Your task to perform on an android device: Go to wifi settings Image 0: 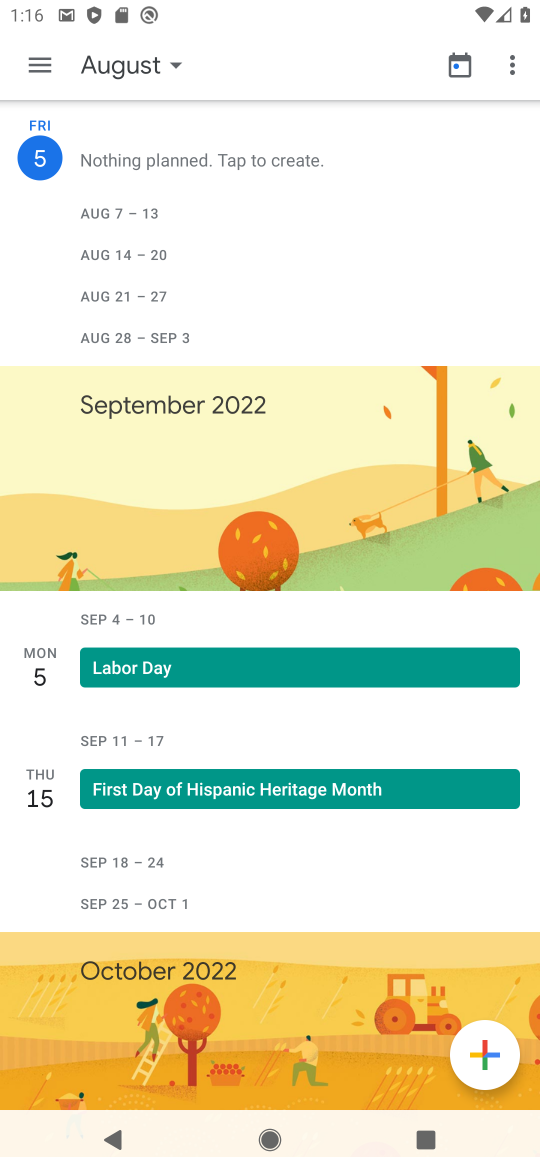
Step 0: press home button
Your task to perform on an android device: Go to wifi settings Image 1: 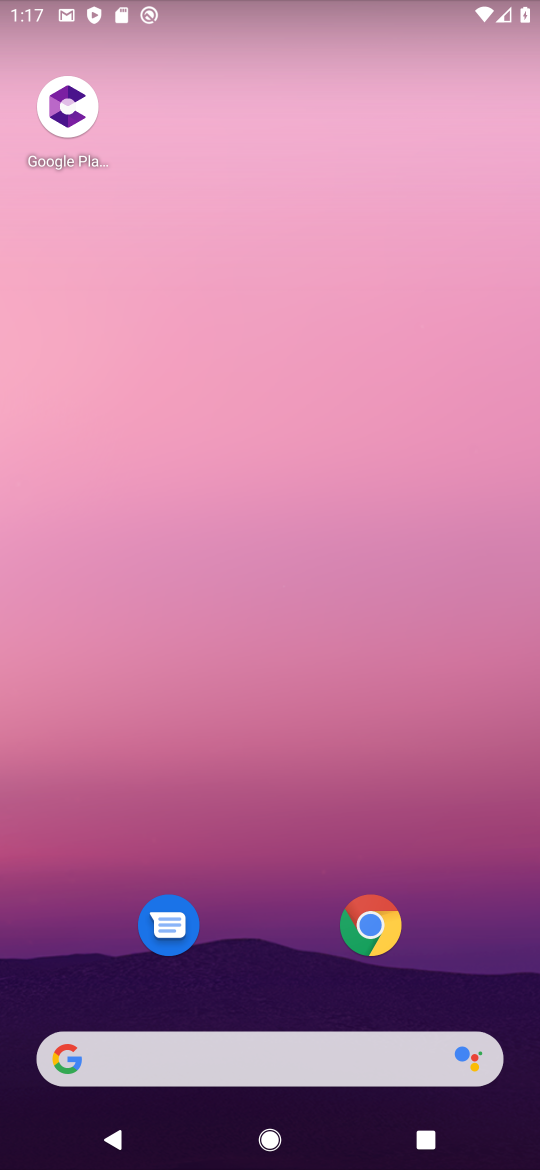
Step 1: drag from (269, 10) to (525, 757)
Your task to perform on an android device: Go to wifi settings Image 2: 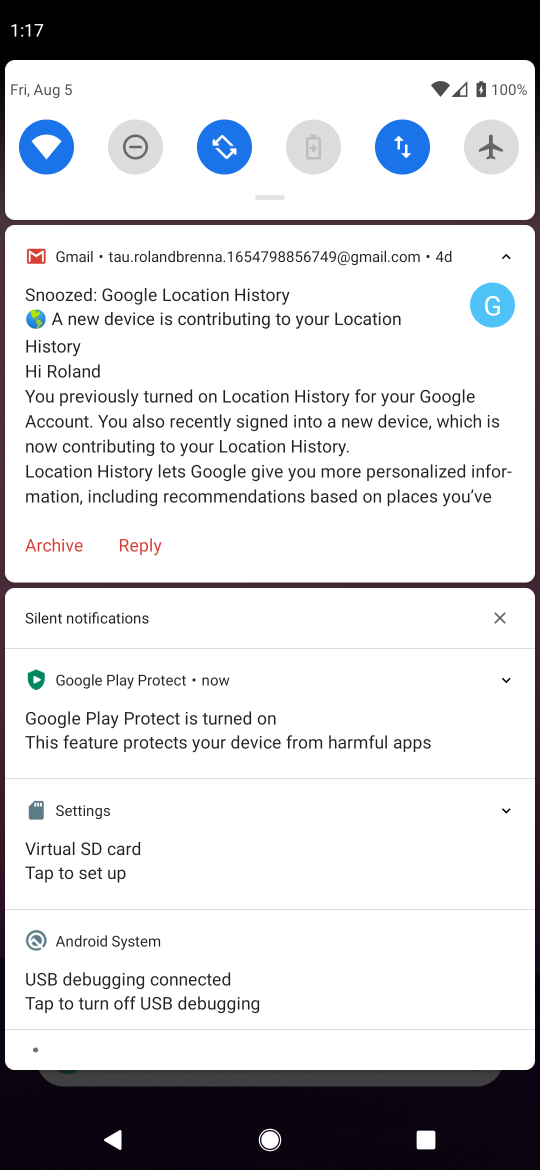
Step 2: click (25, 153)
Your task to perform on an android device: Go to wifi settings Image 3: 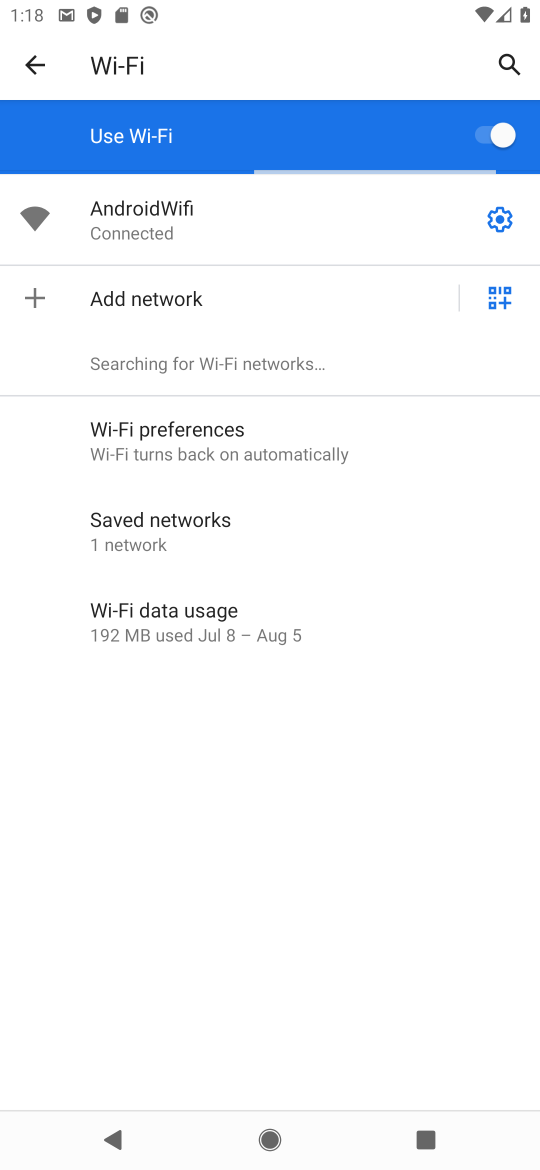
Step 3: task complete